Your task to perform on an android device: stop showing notifications on the lock screen Image 0: 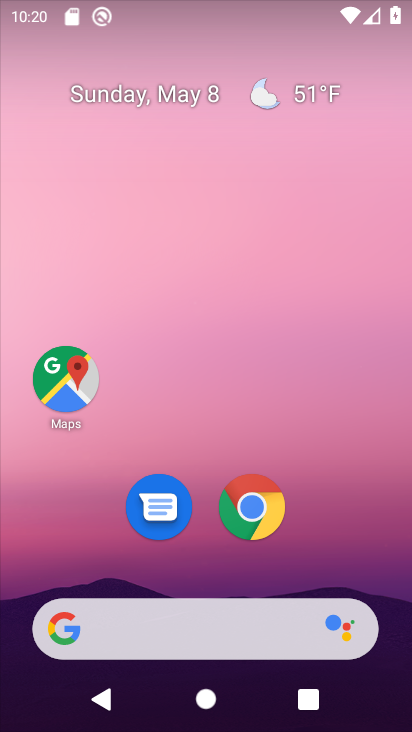
Step 0: drag from (207, 564) to (175, 101)
Your task to perform on an android device: stop showing notifications on the lock screen Image 1: 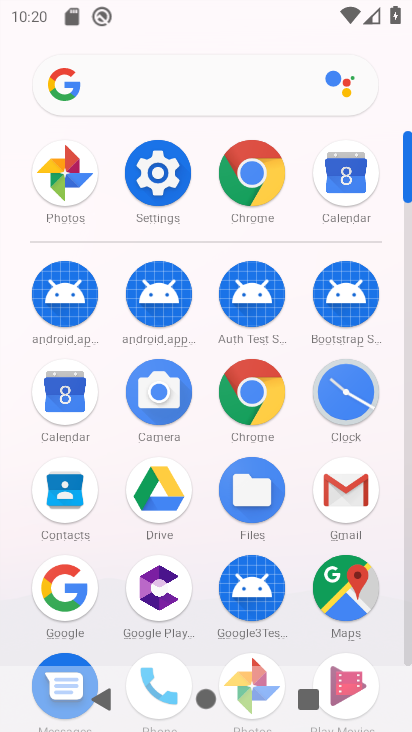
Step 1: click (155, 162)
Your task to perform on an android device: stop showing notifications on the lock screen Image 2: 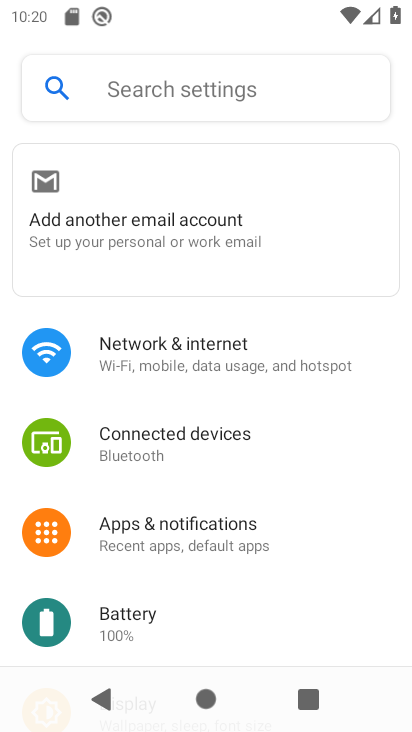
Step 2: click (194, 523)
Your task to perform on an android device: stop showing notifications on the lock screen Image 3: 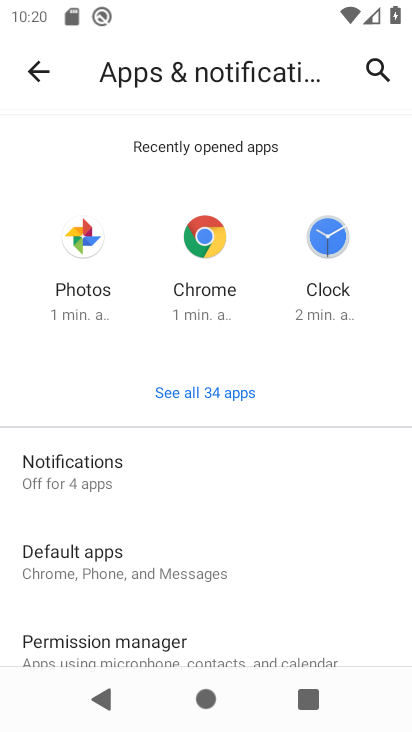
Step 3: click (128, 471)
Your task to perform on an android device: stop showing notifications on the lock screen Image 4: 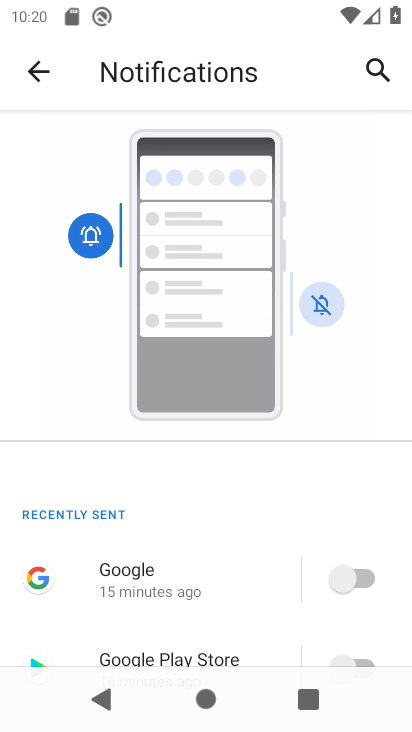
Step 4: drag from (170, 624) to (145, 310)
Your task to perform on an android device: stop showing notifications on the lock screen Image 5: 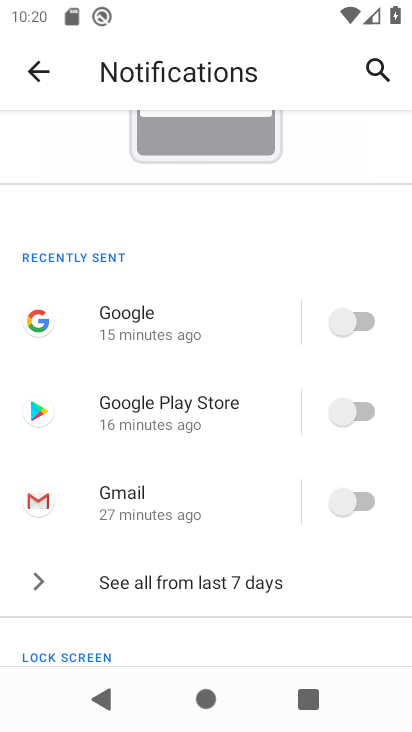
Step 5: drag from (161, 610) to (169, 165)
Your task to perform on an android device: stop showing notifications on the lock screen Image 6: 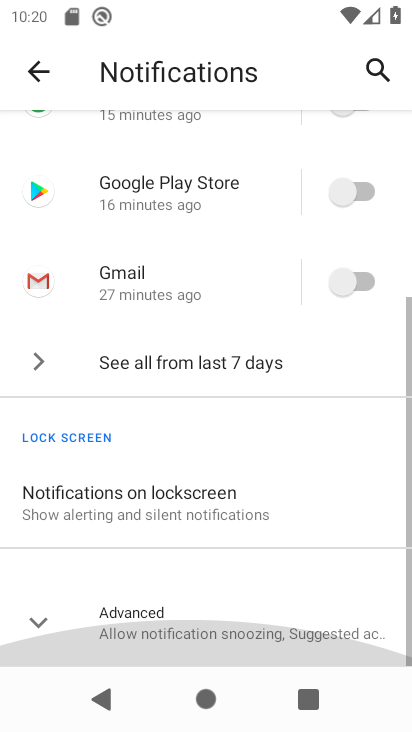
Step 6: click (169, 116)
Your task to perform on an android device: stop showing notifications on the lock screen Image 7: 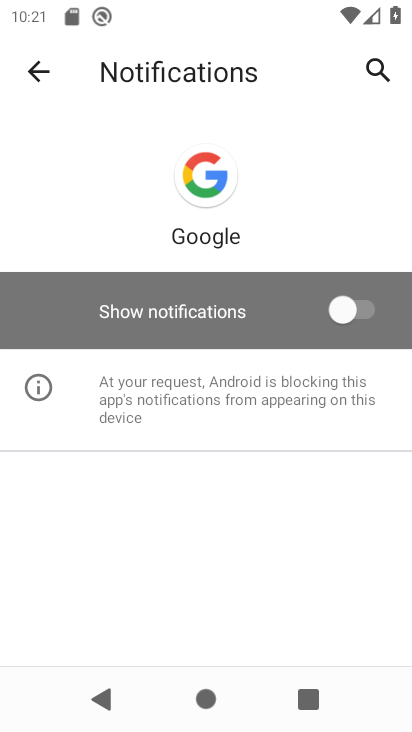
Step 7: click (44, 63)
Your task to perform on an android device: stop showing notifications on the lock screen Image 8: 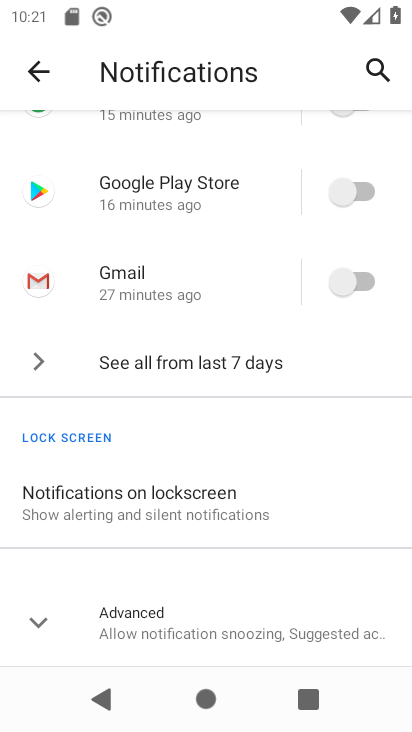
Step 8: click (192, 506)
Your task to perform on an android device: stop showing notifications on the lock screen Image 9: 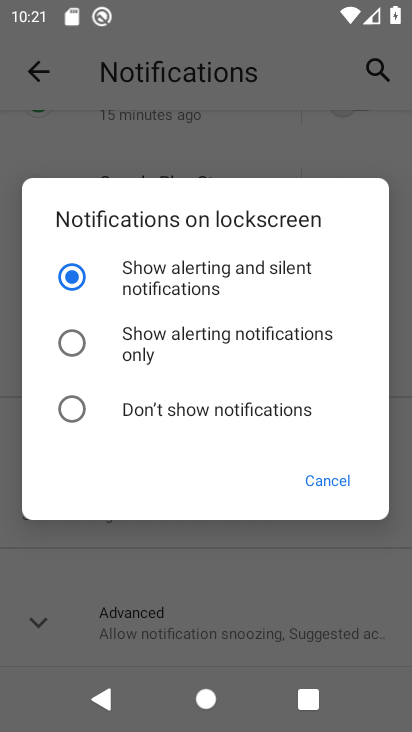
Step 9: click (75, 408)
Your task to perform on an android device: stop showing notifications on the lock screen Image 10: 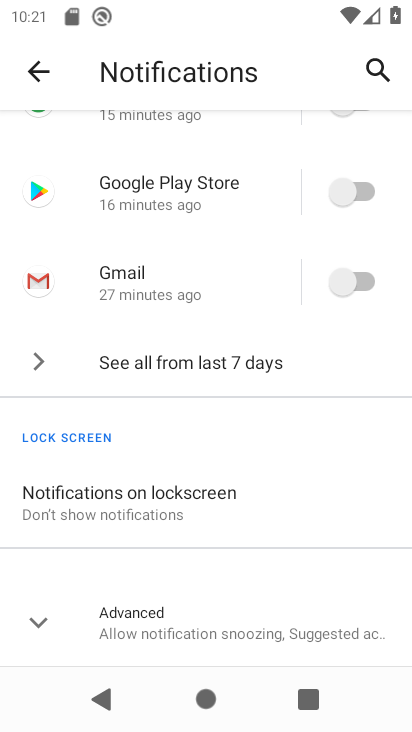
Step 10: task complete